Your task to perform on an android device: uninstall "Google Photos" Image 0: 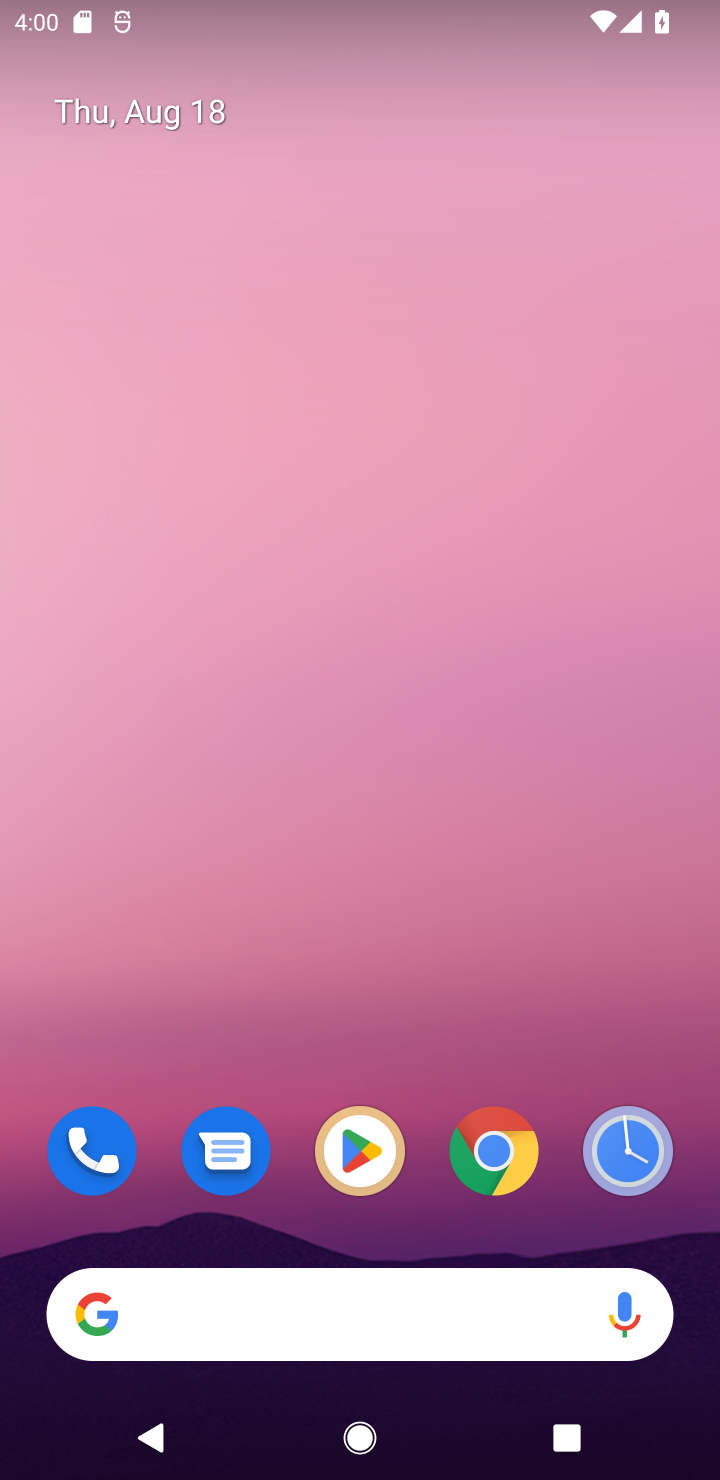
Step 0: click (439, 1240)
Your task to perform on an android device: uninstall "Google Photos" Image 1: 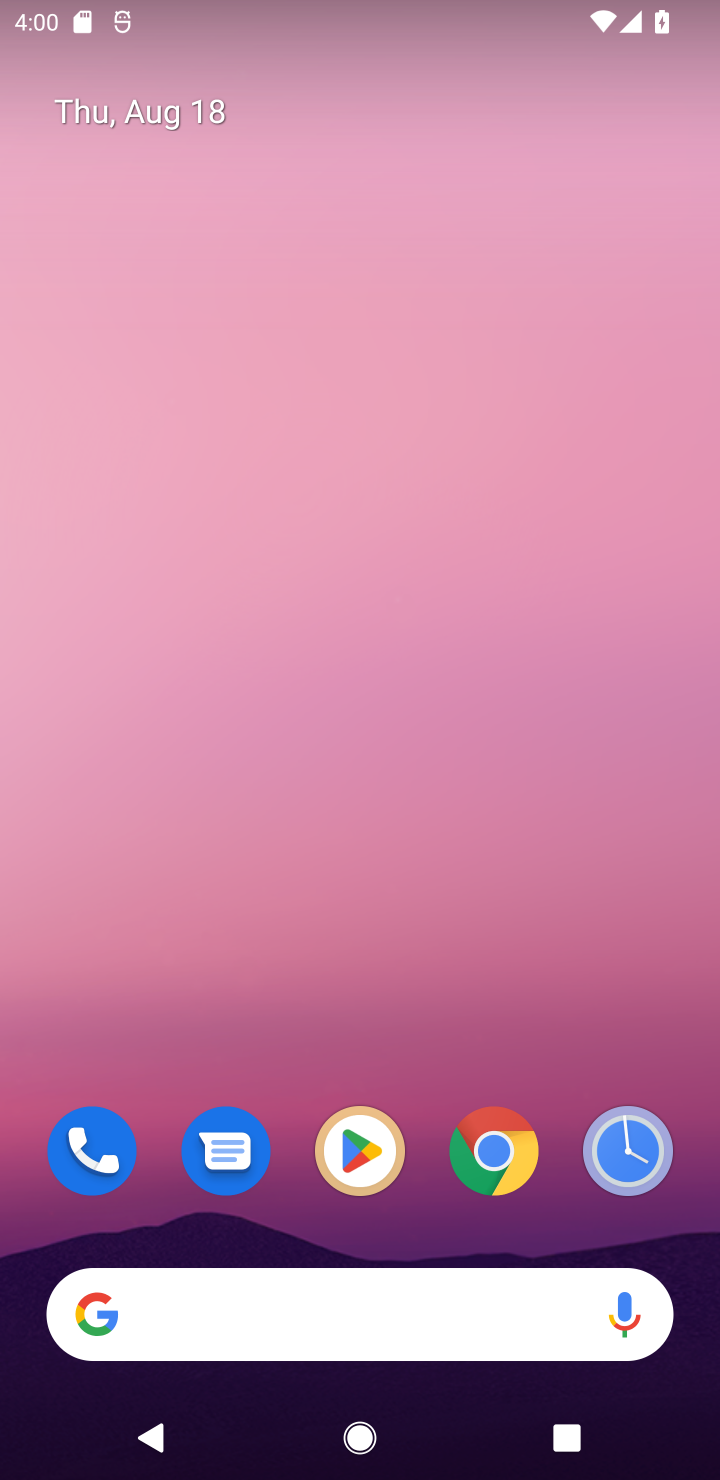
Step 1: click (382, 1169)
Your task to perform on an android device: uninstall "Google Photos" Image 2: 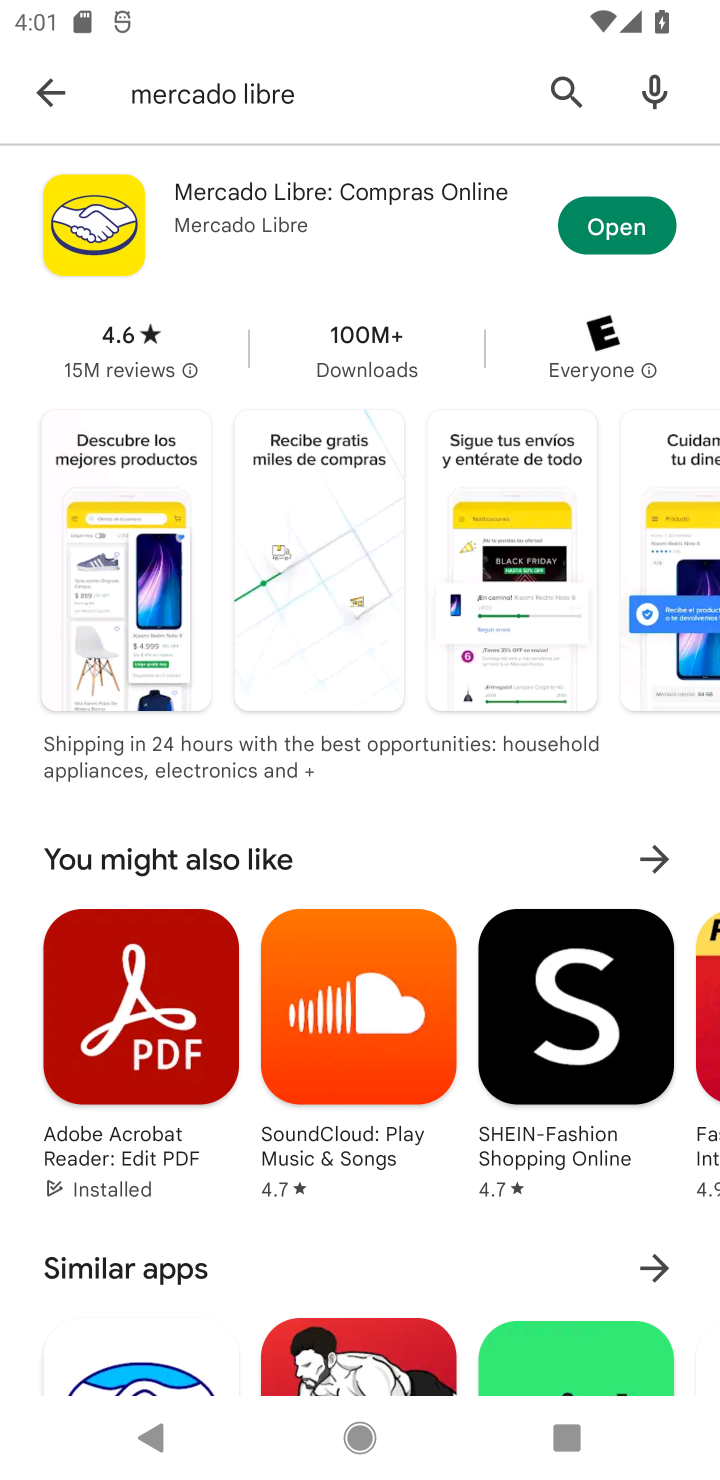
Step 2: click (553, 97)
Your task to perform on an android device: uninstall "Google Photos" Image 3: 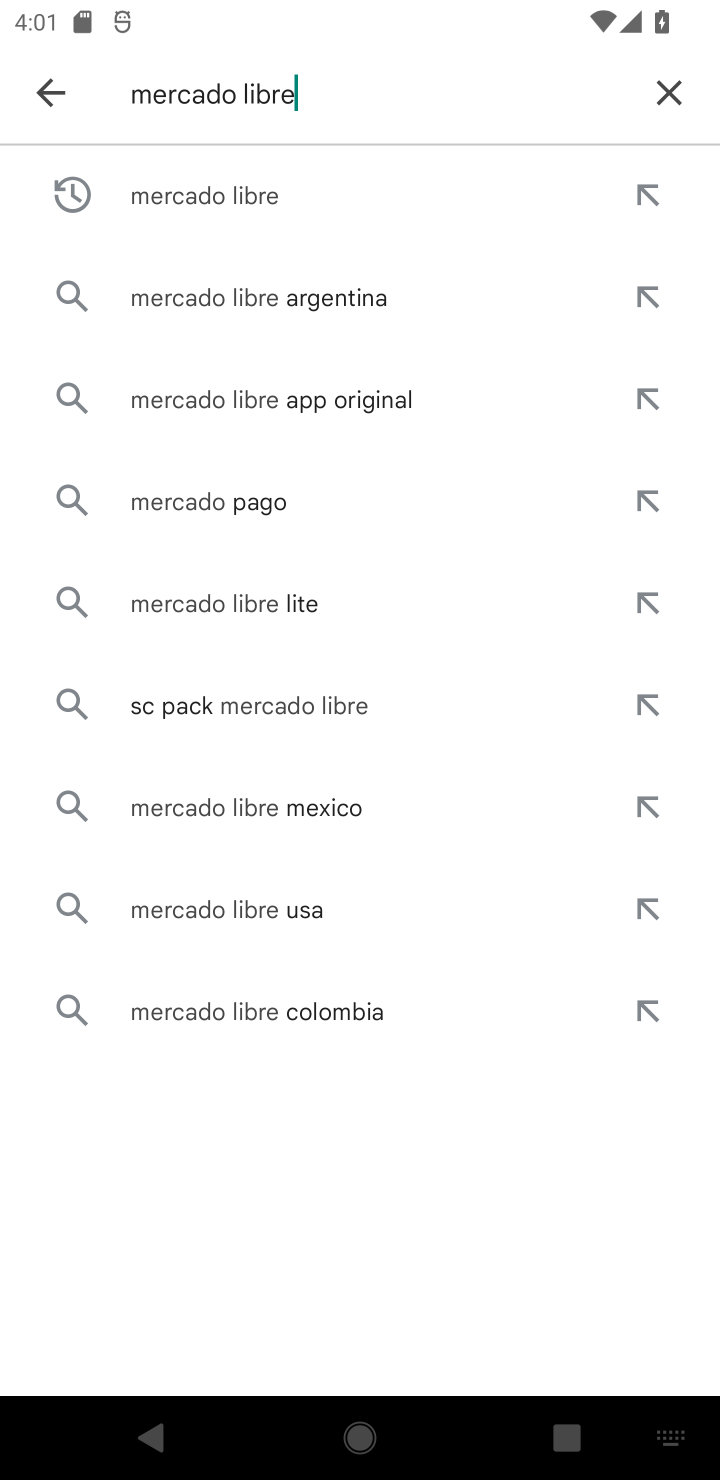
Step 3: click (653, 101)
Your task to perform on an android device: uninstall "Google Photos" Image 4: 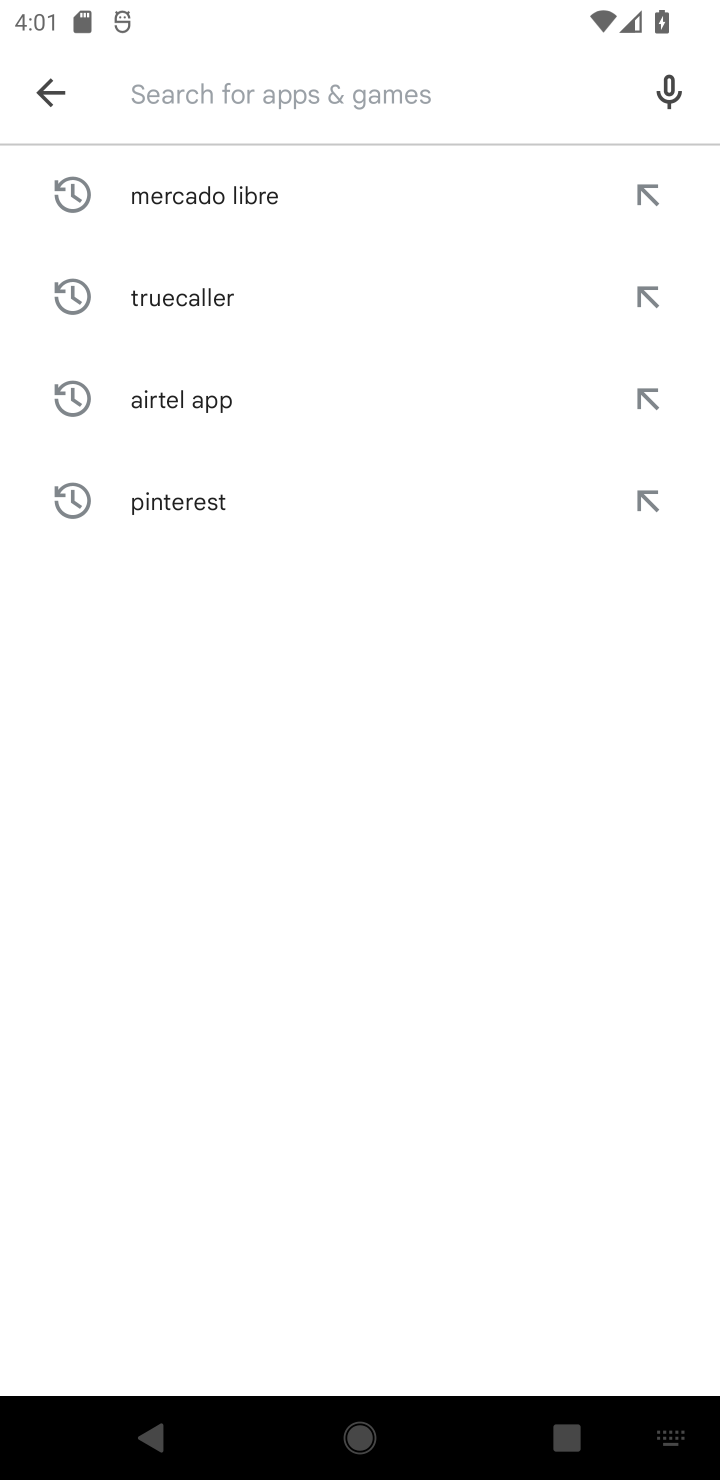
Step 4: type "GOOGLE PHOTO"
Your task to perform on an android device: uninstall "Google Photos" Image 5: 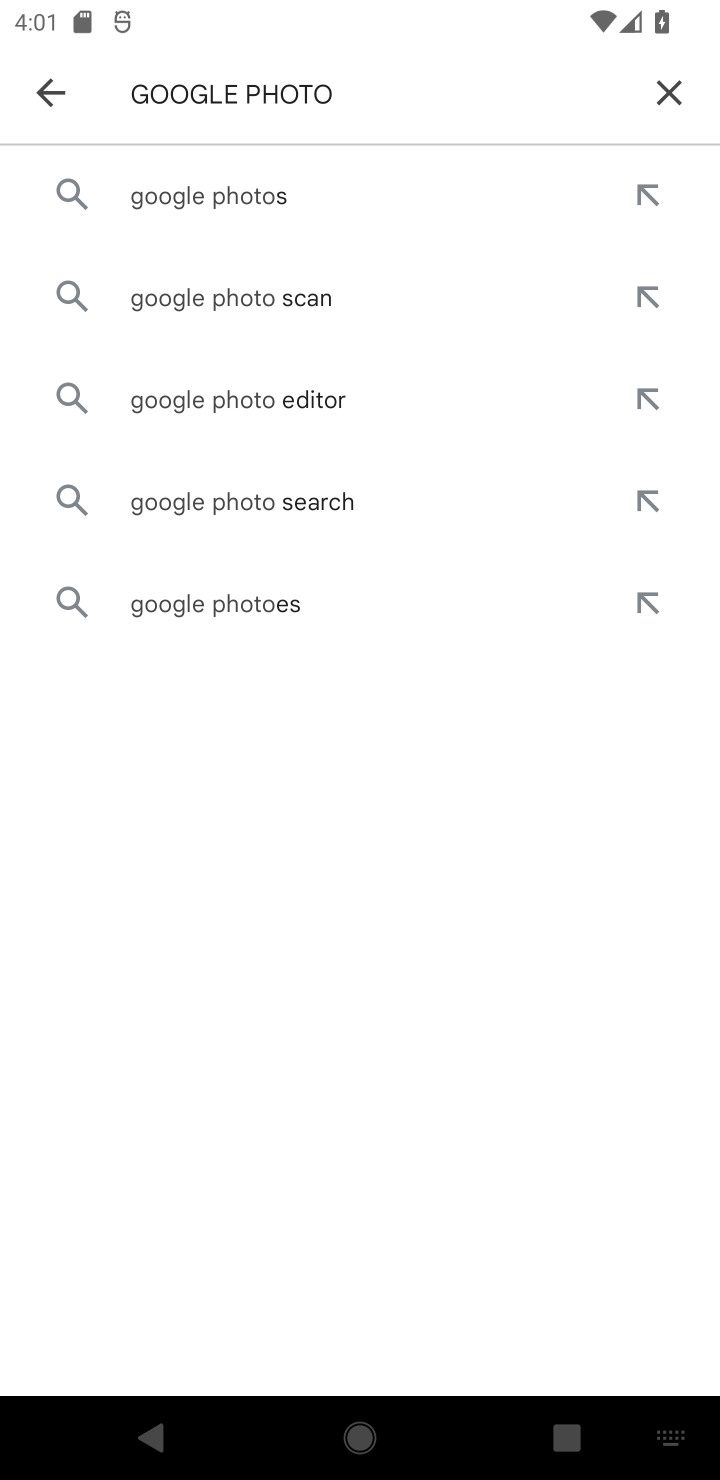
Step 5: click (388, 212)
Your task to perform on an android device: uninstall "Google Photos" Image 6: 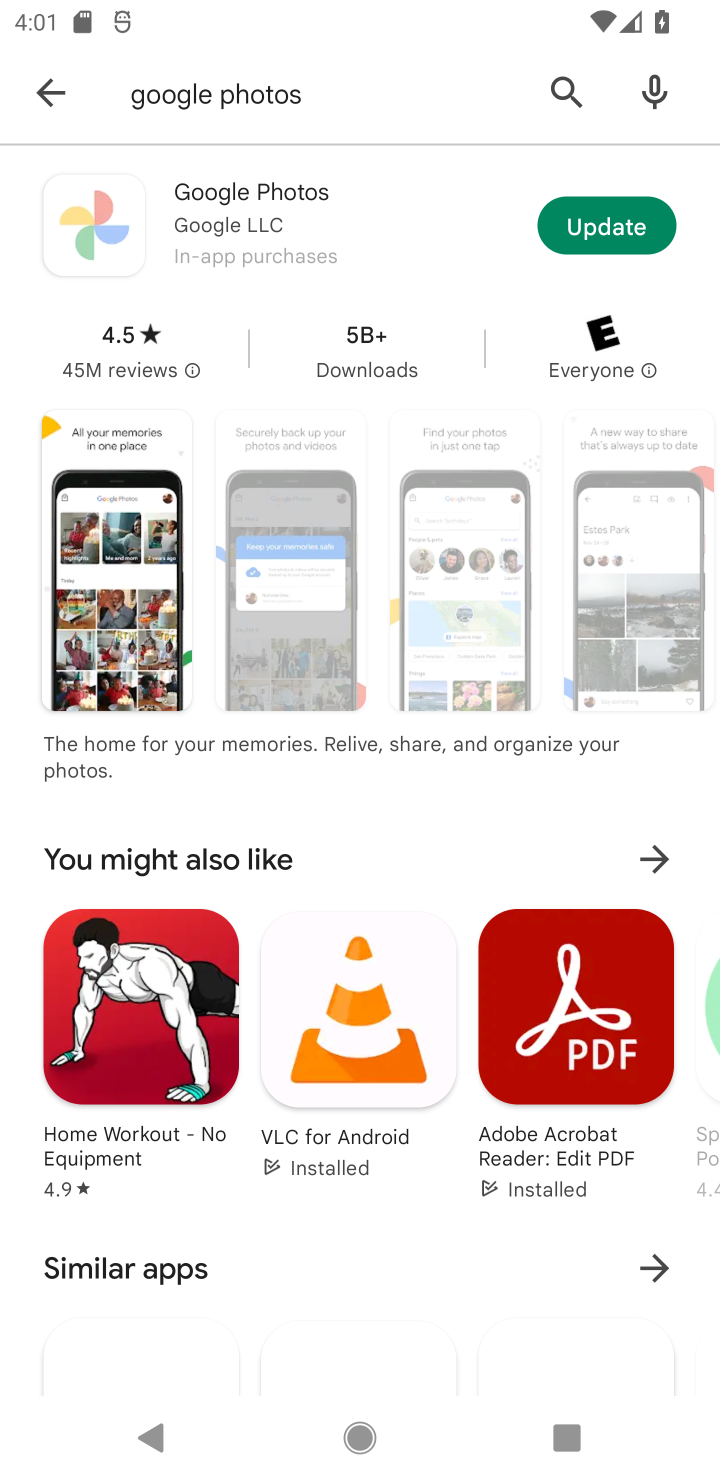
Step 6: task complete